Your task to perform on an android device: Open Google Maps and go to "Timeline" Image 0: 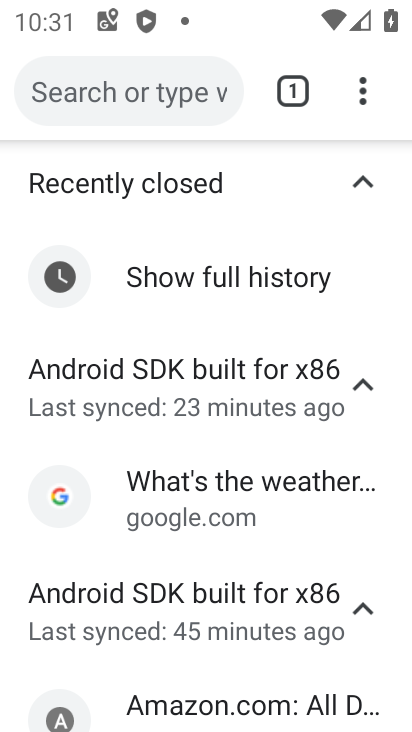
Step 0: press home button
Your task to perform on an android device: Open Google Maps and go to "Timeline" Image 1: 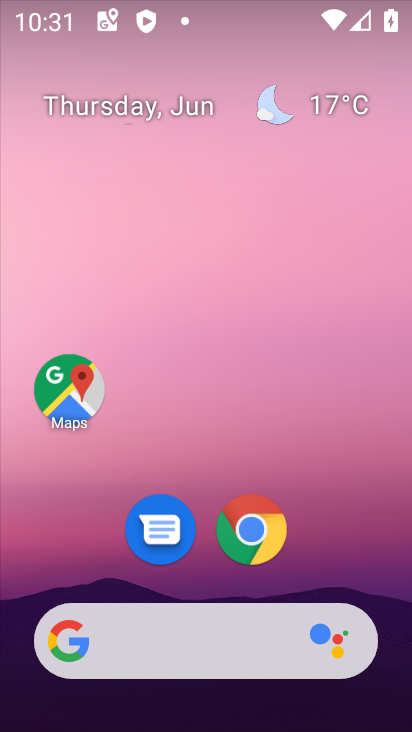
Step 1: drag from (305, 515) to (152, 1)
Your task to perform on an android device: Open Google Maps and go to "Timeline" Image 2: 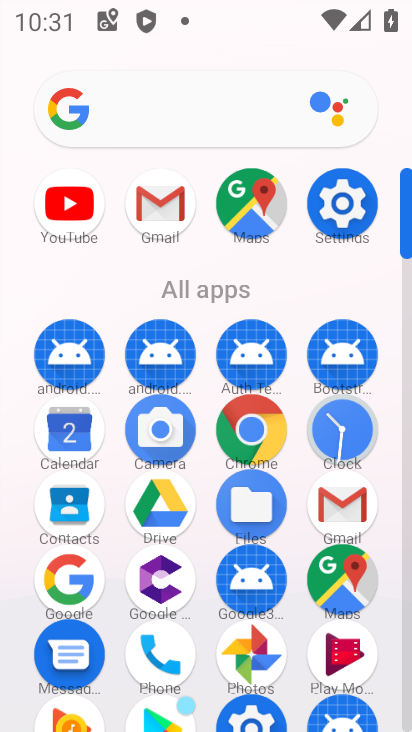
Step 2: click (259, 205)
Your task to perform on an android device: Open Google Maps and go to "Timeline" Image 3: 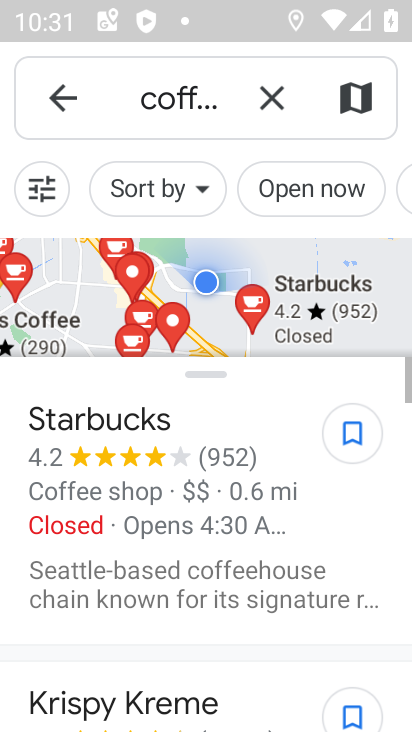
Step 3: click (62, 95)
Your task to perform on an android device: Open Google Maps and go to "Timeline" Image 4: 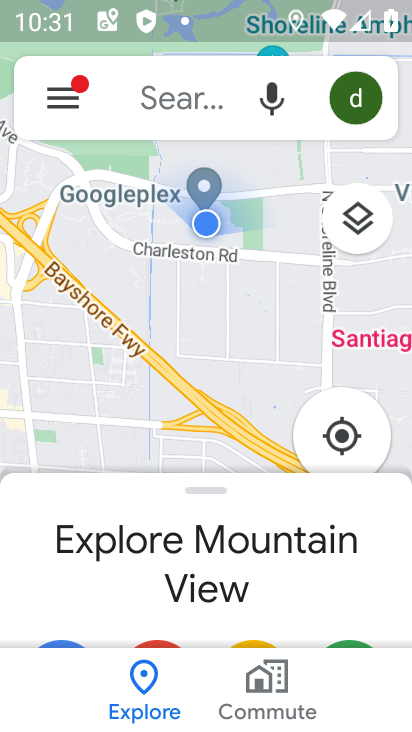
Step 4: click (67, 88)
Your task to perform on an android device: Open Google Maps and go to "Timeline" Image 5: 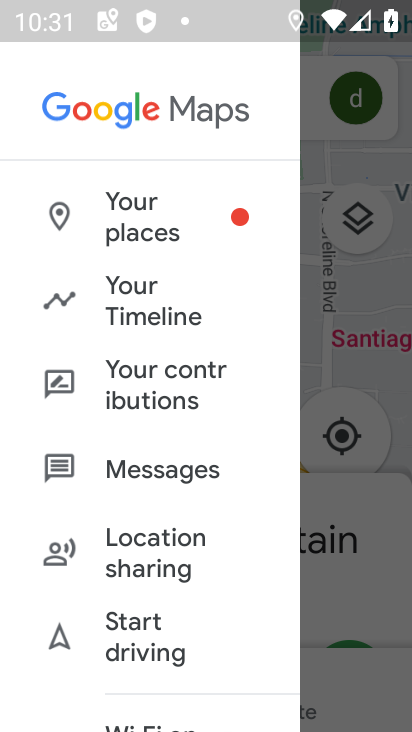
Step 5: click (173, 323)
Your task to perform on an android device: Open Google Maps and go to "Timeline" Image 6: 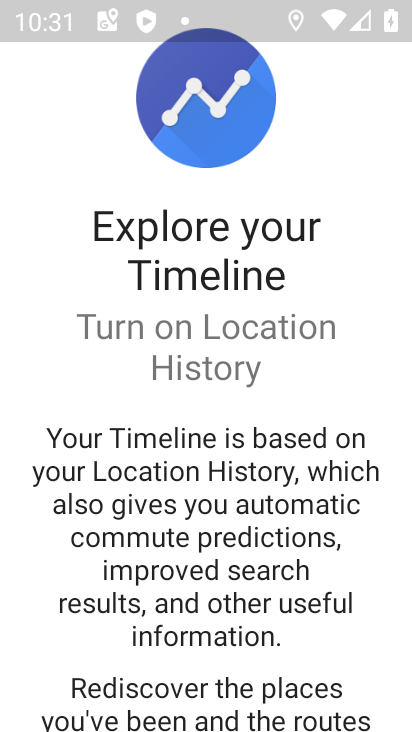
Step 6: drag from (256, 638) to (278, 145)
Your task to perform on an android device: Open Google Maps and go to "Timeline" Image 7: 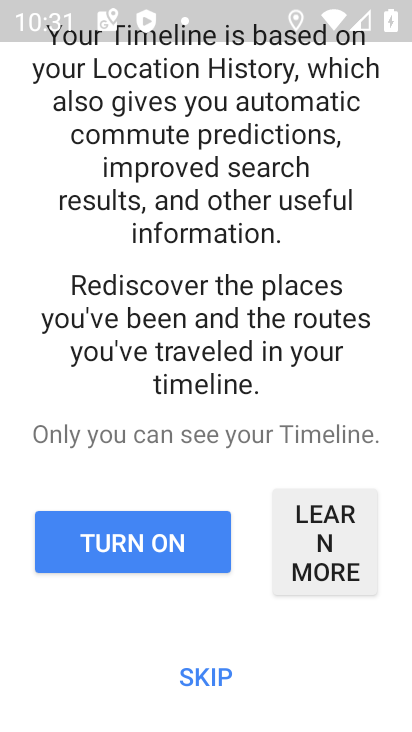
Step 7: click (210, 676)
Your task to perform on an android device: Open Google Maps and go to "Timeline" Image 8: 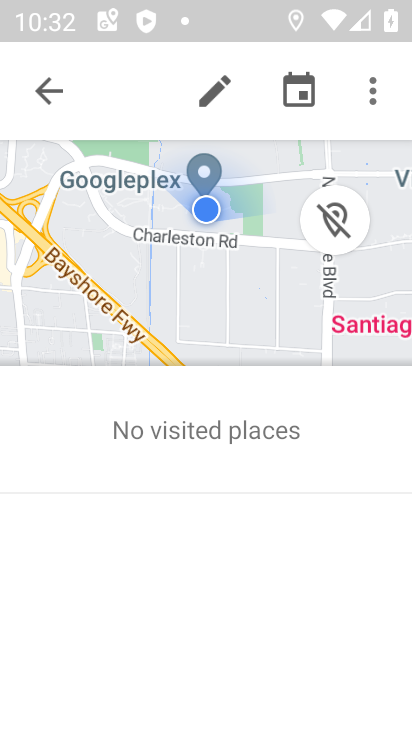
Step 8: task complete